Your task to perform on an android device: Show me productivity apps on the Play Store Image 0: 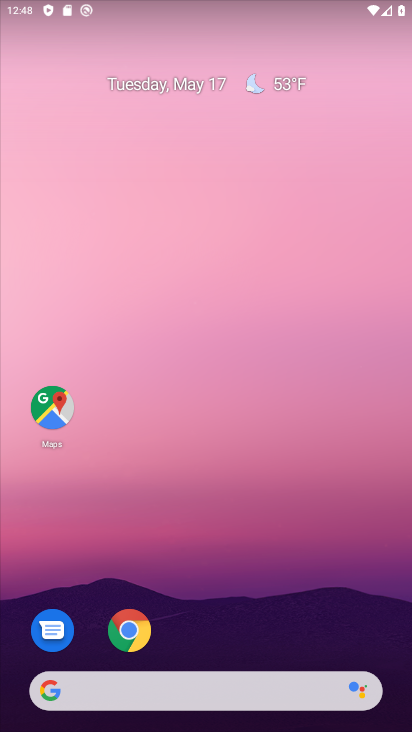
Step 0: drag from (213, 617) to (230, 287)
Your task to perform on an android device: Show me productivity apps on the Play Store Image 1: 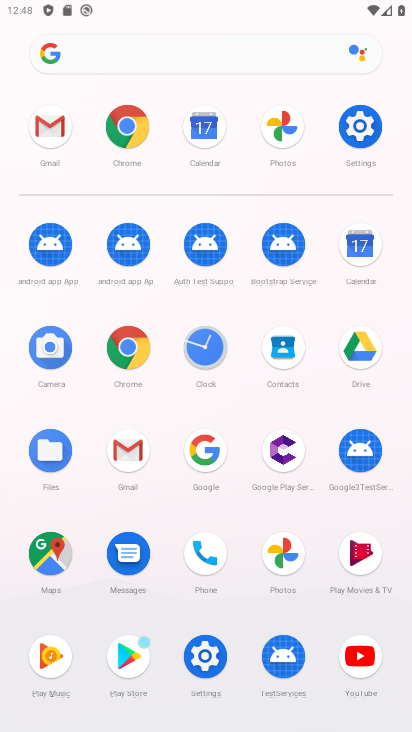
Step 1: click (136, 692)
Your task to perform on an android device: Show me productivity apps on the Play Store Image 2: 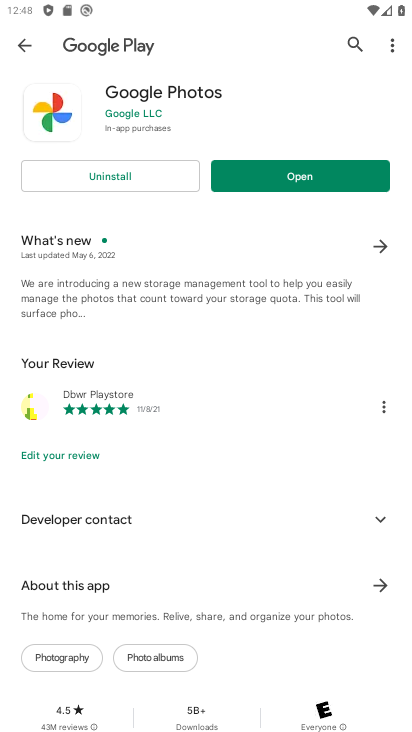
Step 2: click (24, 56)
Your task to perform on an android device: Show me productivity apps on the Play Store Image 3: 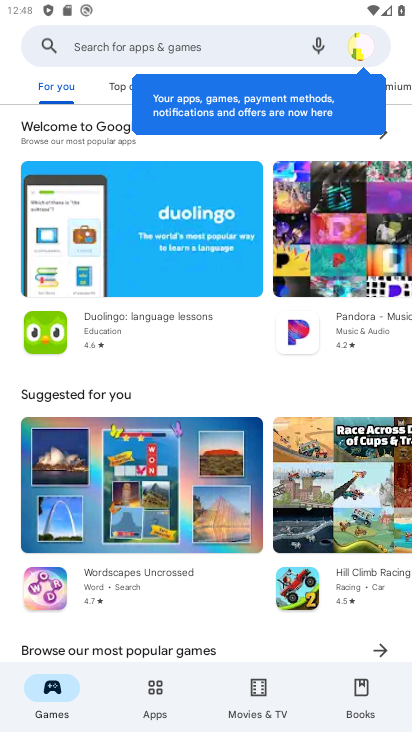
Step 3: click (121, 57)
Your task to perform on an android device: Show me productivity apps on the Play Store Image 4: 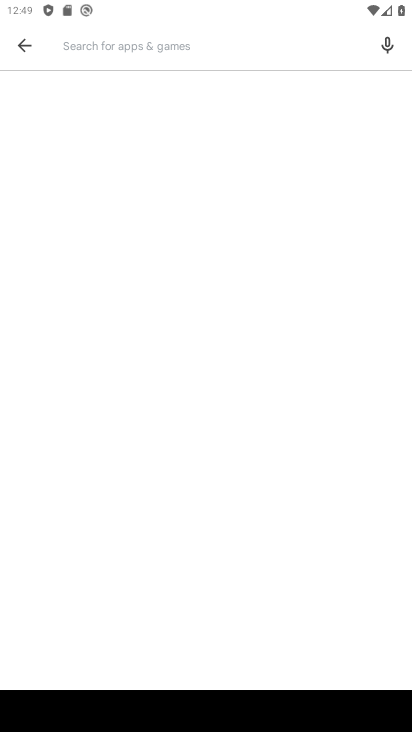
Step 4: type "productivity aaps"
Your task to perform on an android device: Show me productivity apps on the Play Store Image 5: 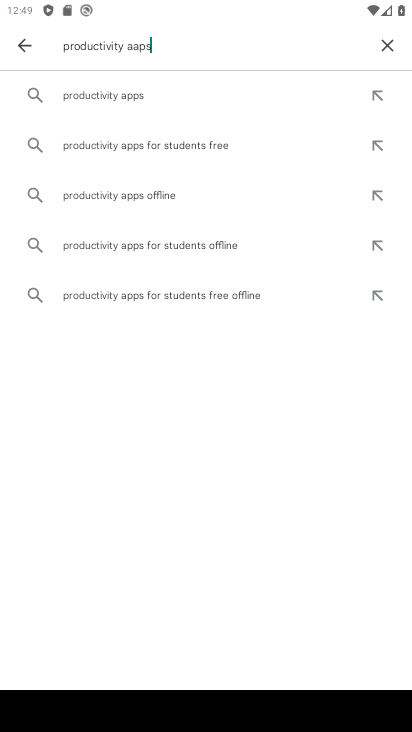
Step 5: click (138, 88)
Your task to perform on an android device: Show me productivity apps on the Play Store Image 6: 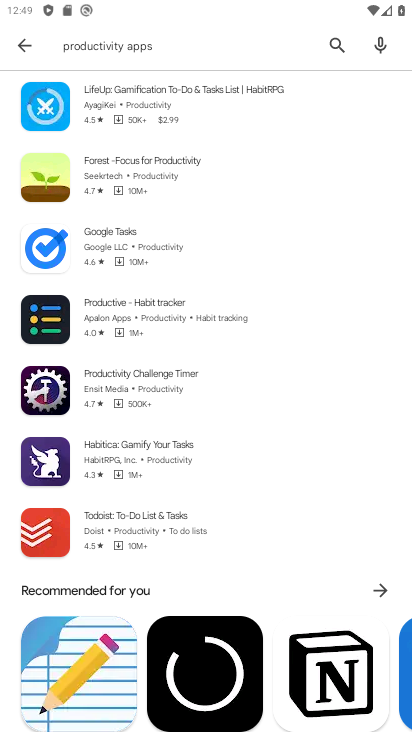
Step 6: task complete